Your task to perform on an android device: Add "panasonic triple a" to the cart on costco Image 0: 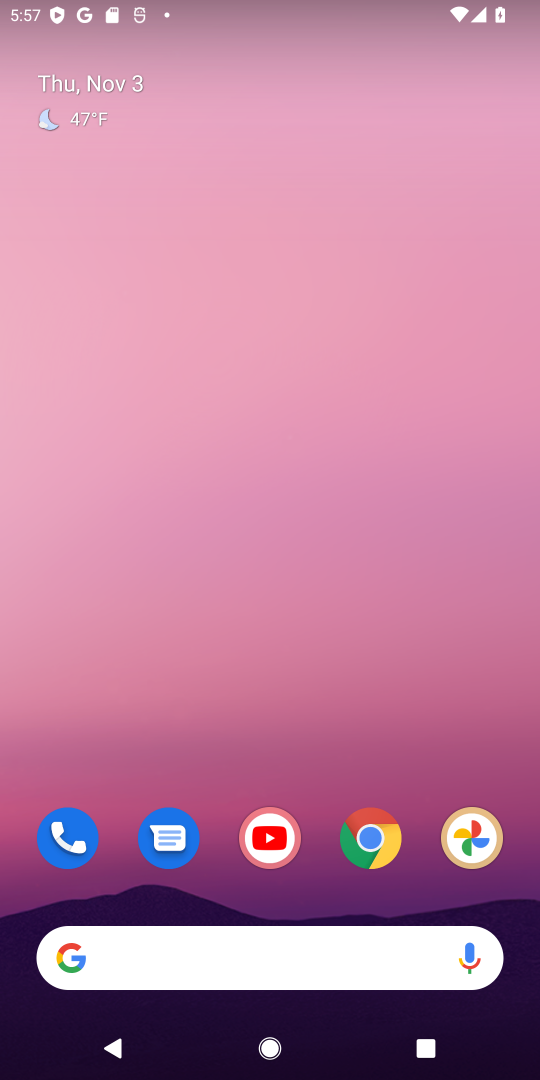
Step 0: click (346, 933)
Your task to perform on an android device: Add "panasonic triple a" to the cart on costco Image 1: 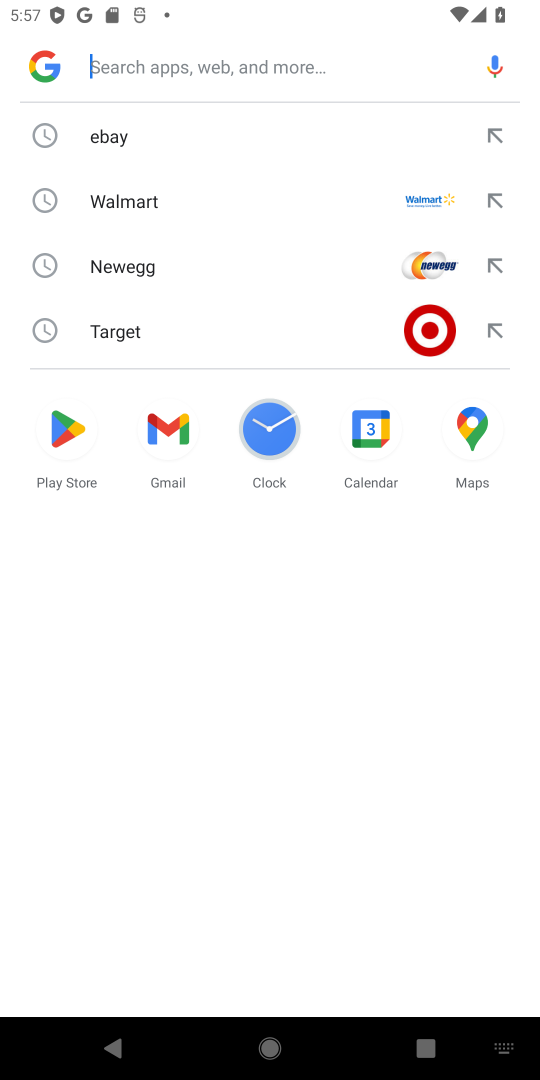
Step 1: type "costco"
Your task to perform on an android device: Add "panasonic triple a" to the cart on costco Image 2: 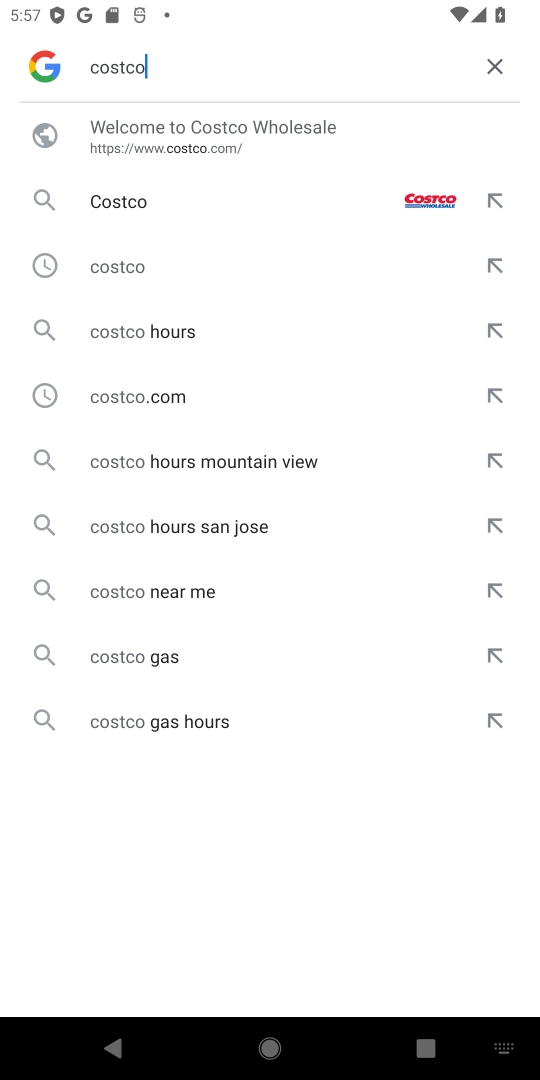
Step 2: click (226, 215)
Your task to perform on an android device: Add "panasonic triple a" to the cart on costco Image 3: 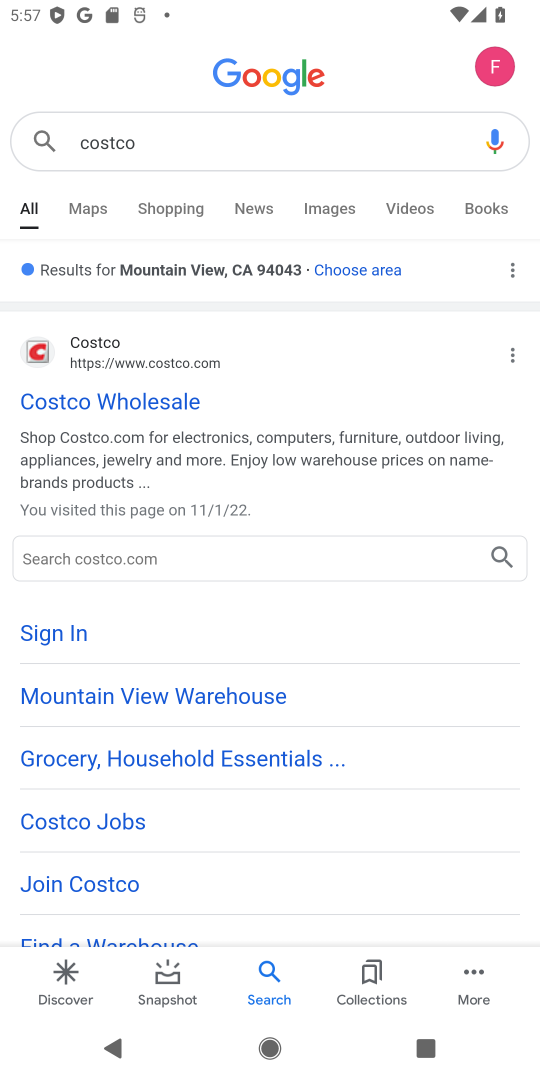
Step 3: click (91, 360)
Your task to perform on an android device: Add "panasonic triple a" to the cart on costco Image 4: 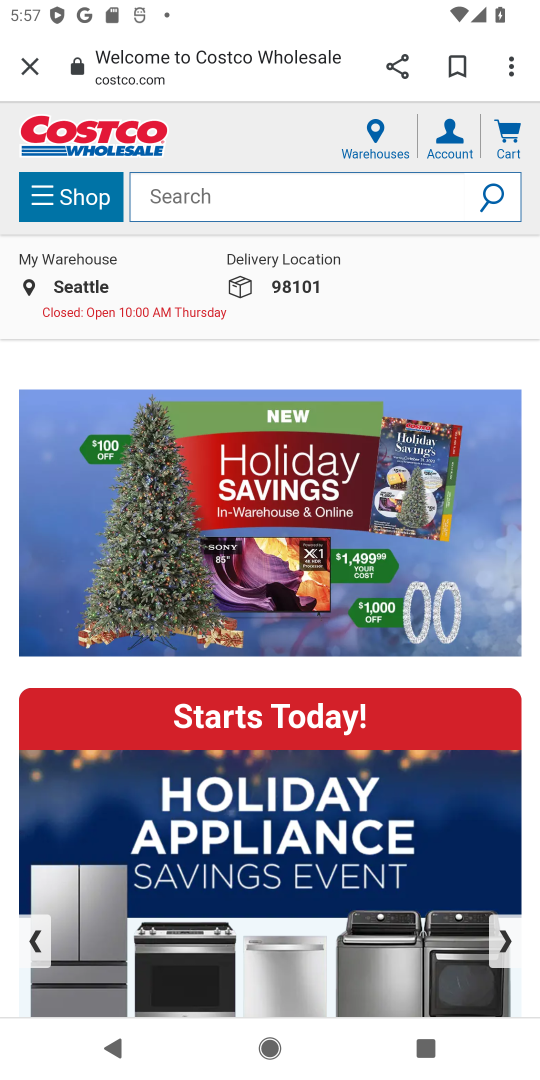
Step 4: click (213, 180)
Your task to perform on an android device: Add "panasonic triple a" to the cart on costco Image 5: 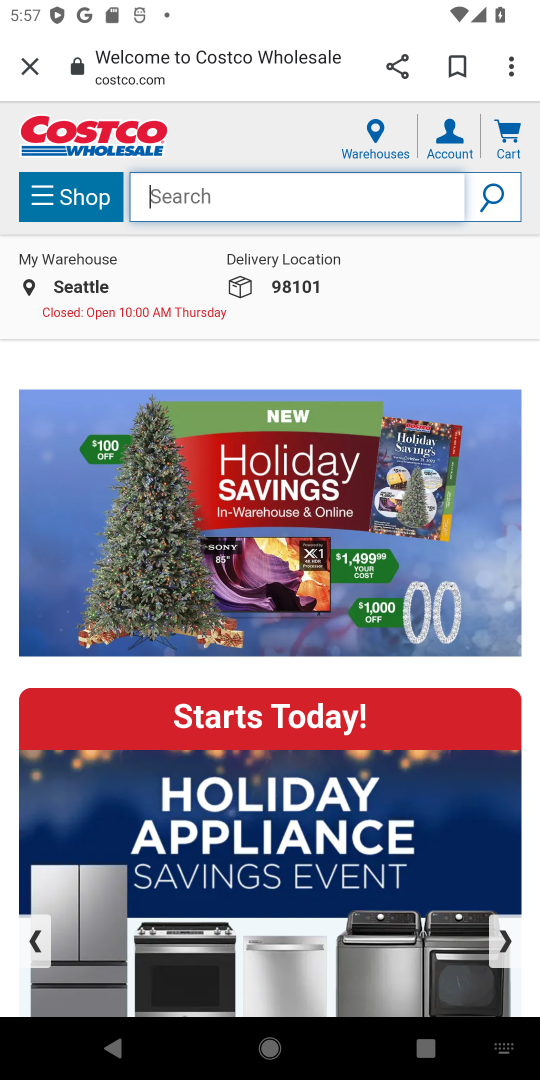
Step 5: type "panasonic triple a"
Your task to perform on an android device: Add "panasonic triple a" to the cart on costco Image 6: 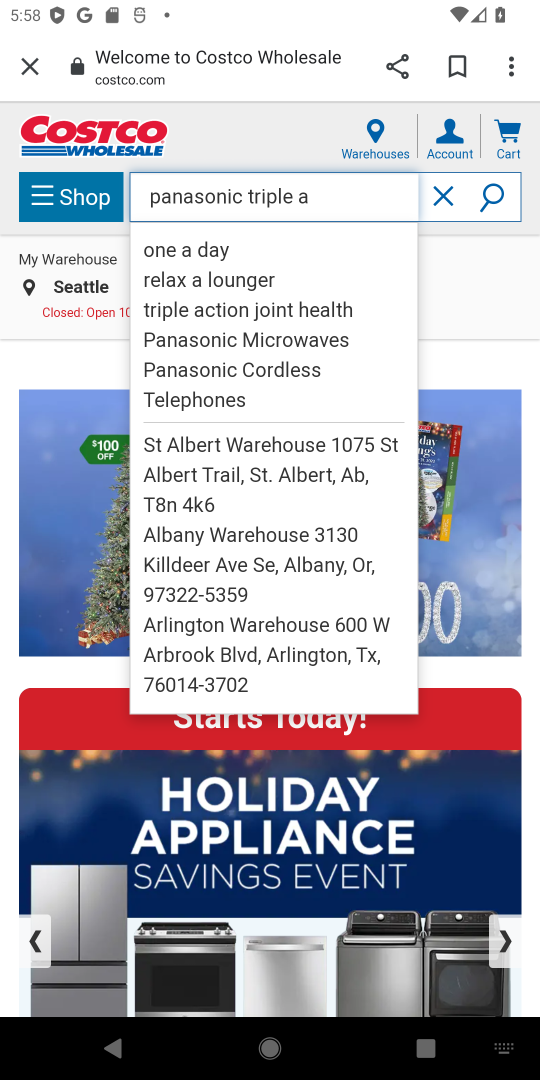
Step 6: click (502, 198)
Your task to perform on an android device: Add "panasonic triple a" to the cart on costco Image 7: 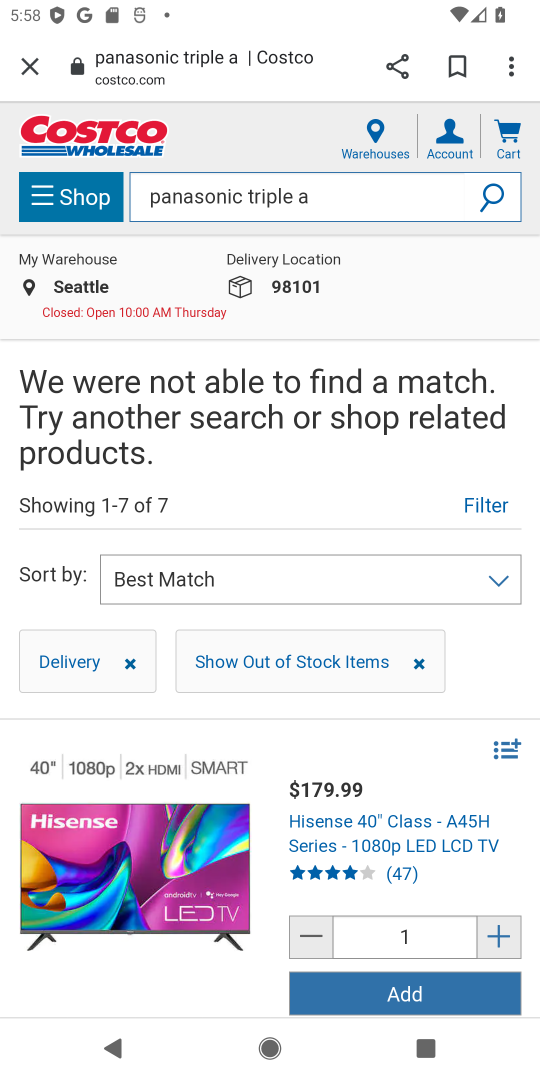
Step 7: click (420, 986)
Your task to perform on an android device: Add "panasonic triple a" to the cart on costco Image 8: 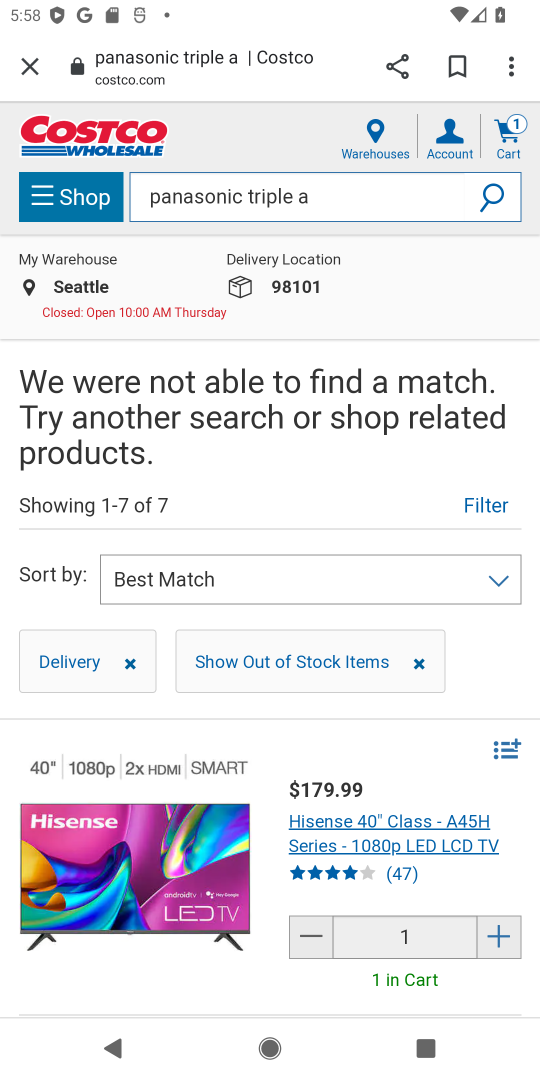
Step 8: task complete